Your task to perform on an android device: open a bookmark in the chrome app Image 0: 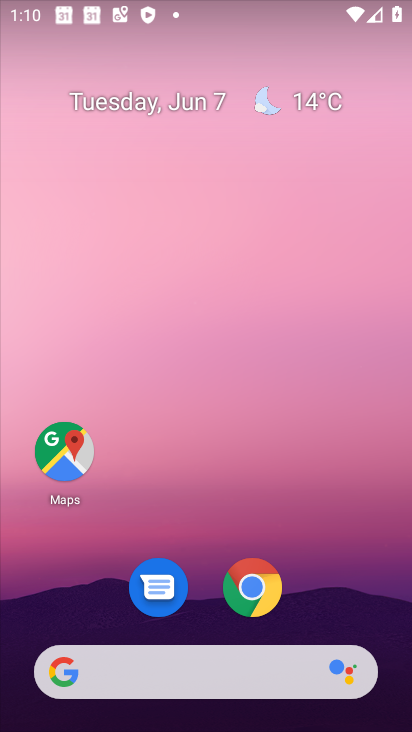
Step 0: click (284, 602)
Your task to perform on an android device: open a bookmark in the chrome app Image 1: 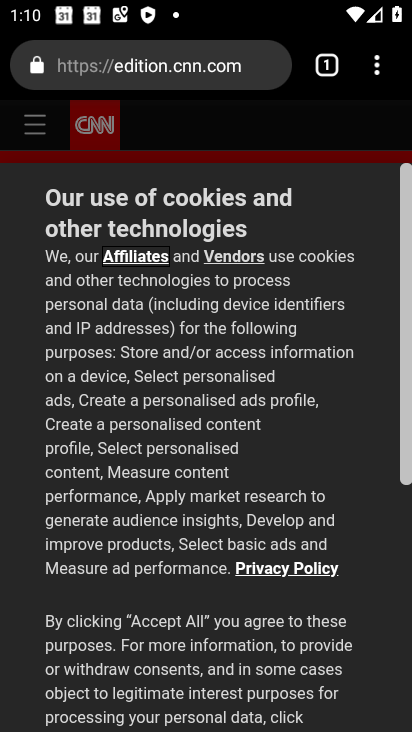
Step 1: click (385, 71)
Your task to perform on an android device: open a bookmark in the chrome app Image 2: 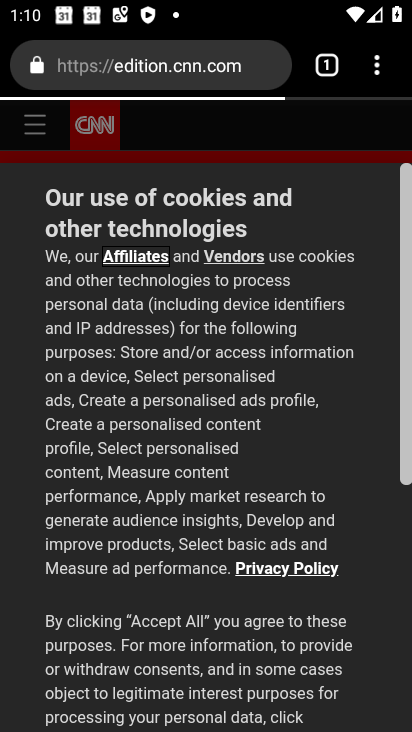
Step 2: click (373, 60)
Your task to perform on an android device: open a bookmark in the chrome app Image 3: 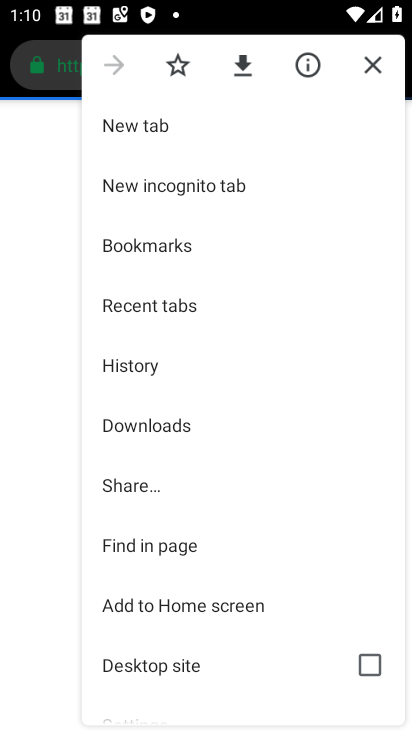
Step 3: click (186, 234)
Your task to perform on an android device: open a bookmark in the chrome app Image 4: 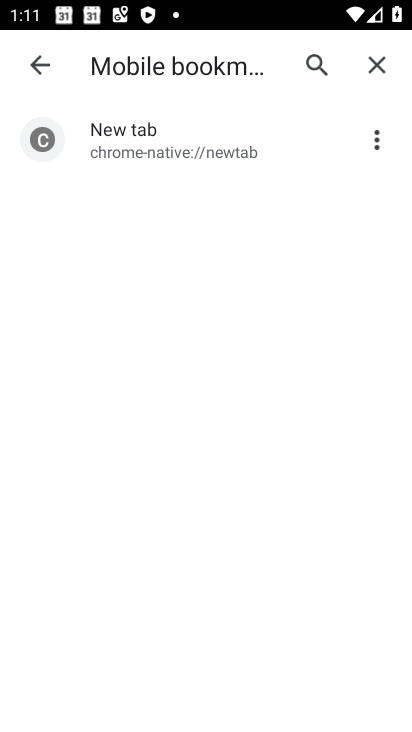
Step 4: click (192, 160)
Your task to perform on an android device: open a bookmark in the chrome app Image 5: 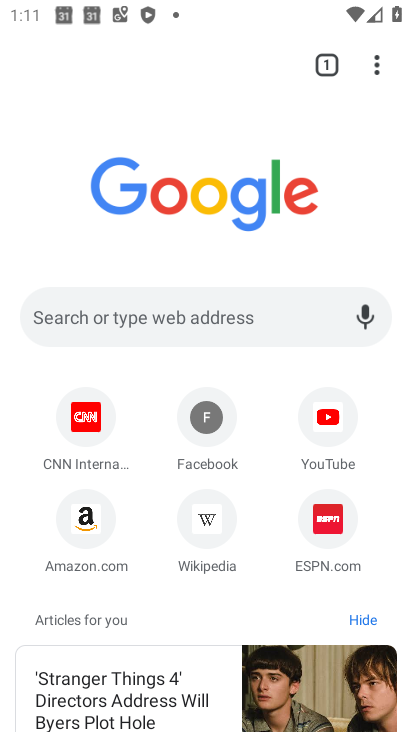
Step 5: task complete